Your task to perform on an android device: Find coffee shops on Maps Image 0: 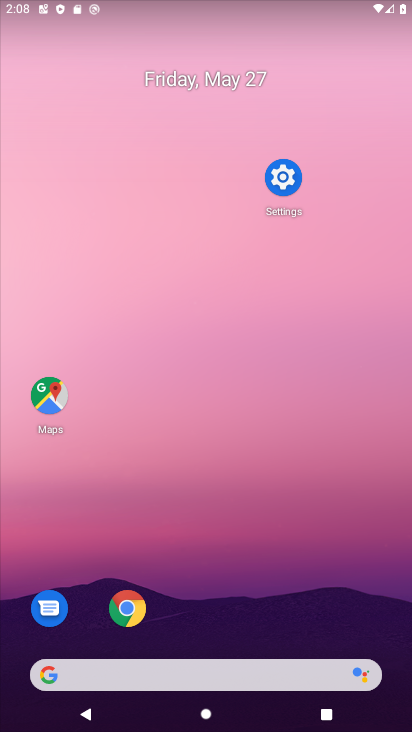
Step 0: click (45, 387)
Your task to perform on an android device: Find coffee shops on Maps Image 1: 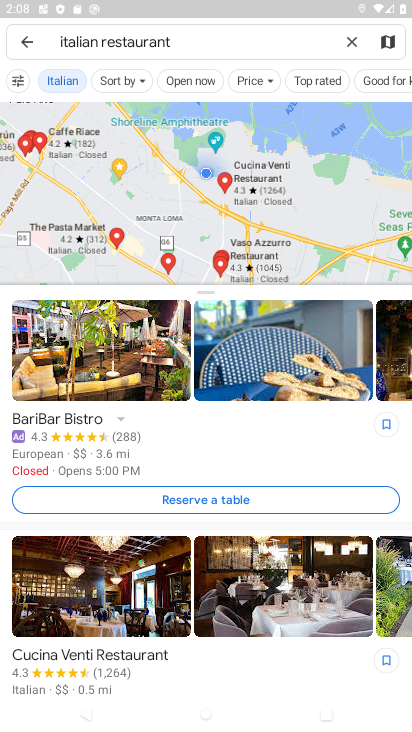
Step 1: type "coffee shops"
Your task to perform on an android device: Find coffee shops on Maps Image 2: 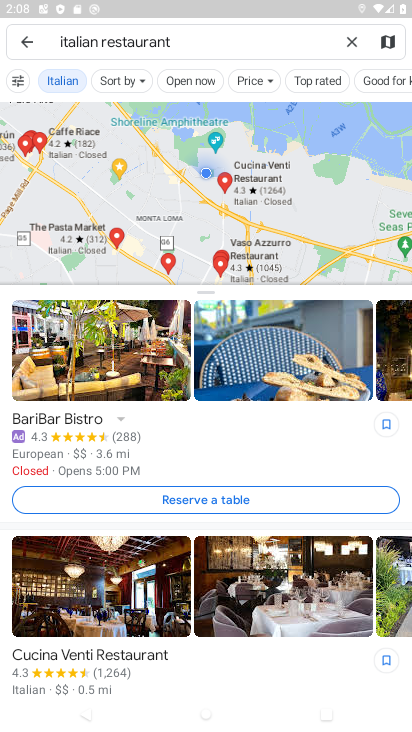
Step 2: click (205, 41)
Your task to perform on an android device: Find coffee shops on Maps Image 3: 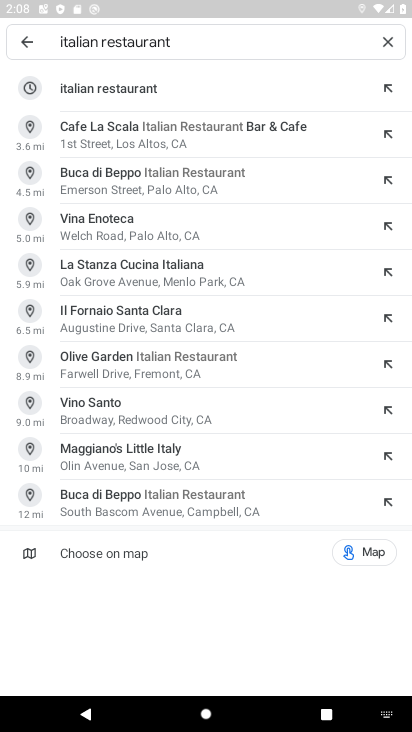
Step 3: click (218, 38)
Your task to perform on an android device: Find coffee shops on Maps Image 4: 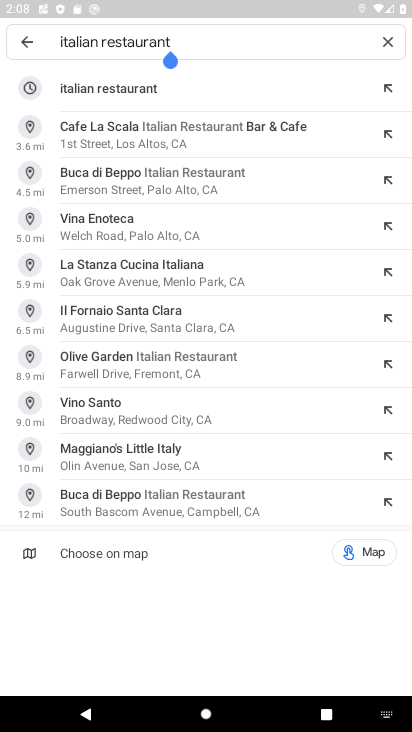
Step 4: click (389, 38)
Your task to perform on an android device: Find coffee shops on Maps Image 5: 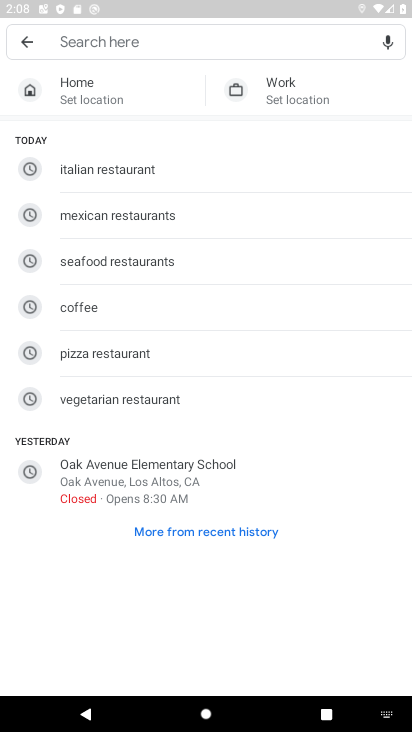
Step 5: click (138, 41)
Your task to perform on an android device: Find coffee shops on Maps Image 6: 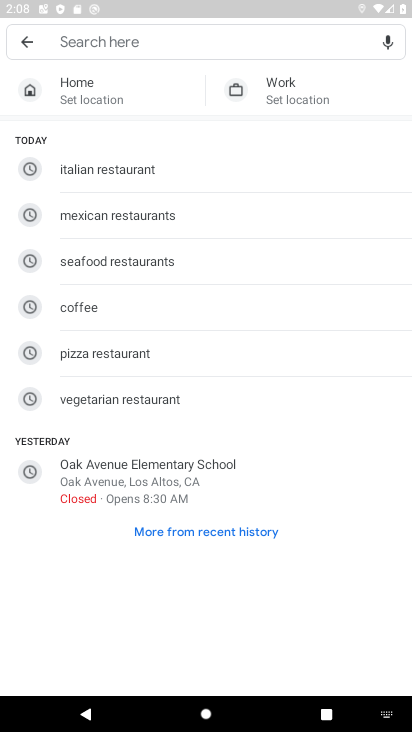
Step 6: click (104, 33)
Your task to perform on an android device: Find coffee shops on Maps Image 7: 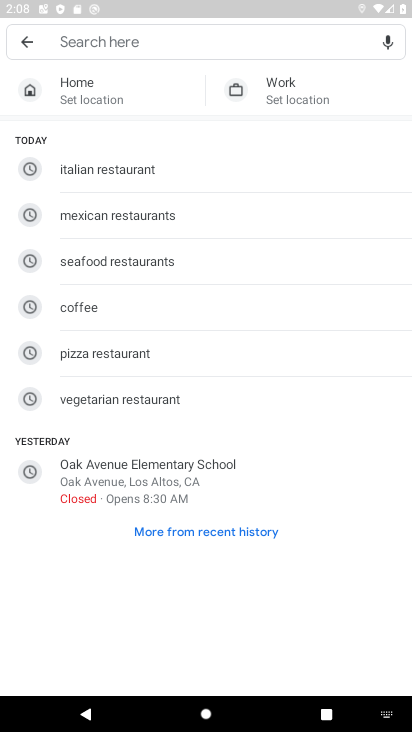
Step 7: click (105, 33)
Your task to perform on an android device: Find coffee shops on Maps Image 8: 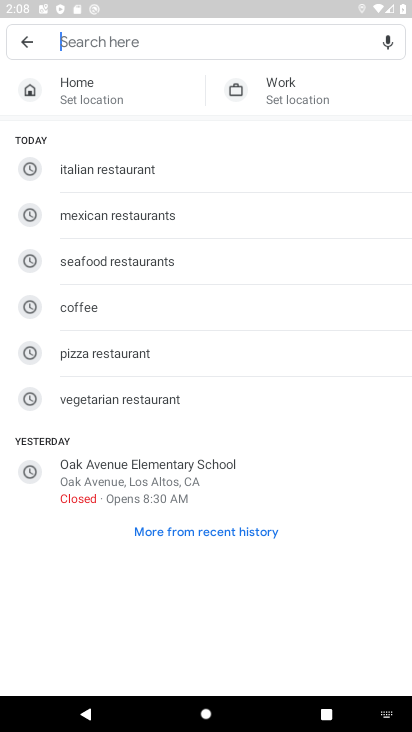
Step 8: type "coffee shops"
Your task to perform on an android device: Find coffee shops on Maps Image 9: 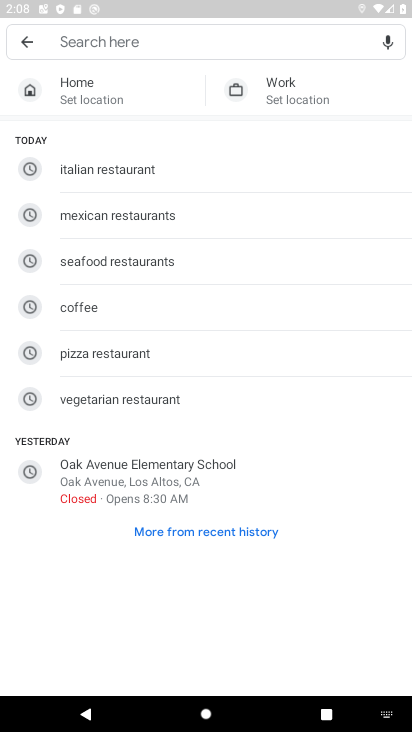
Step 9: click (156, 37)
Your task to perform on an android device: Find coffee shops on Maps Image 10: 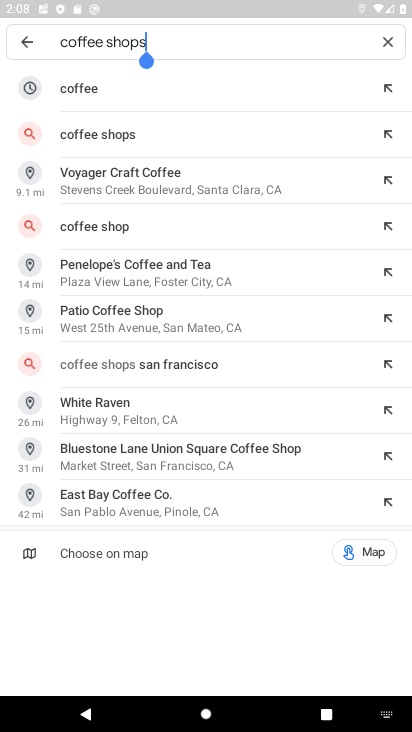
Step 10: click (128, 130)
Your task to perform on an android device: Find coffee shops on Maps Image 11: 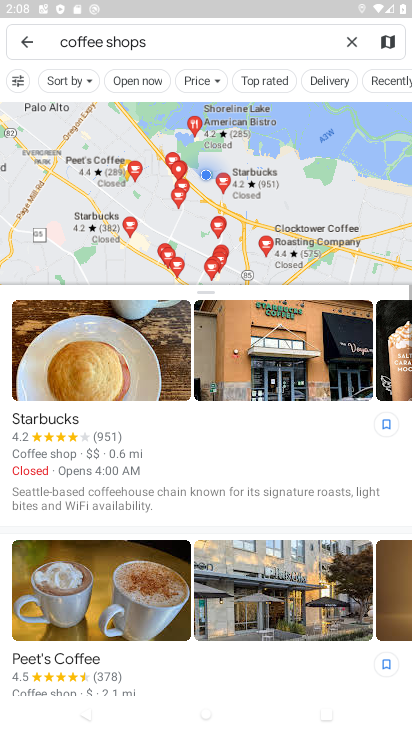
Step 11: task complete